Your task to perform on an android device: Open eBay Image 0: 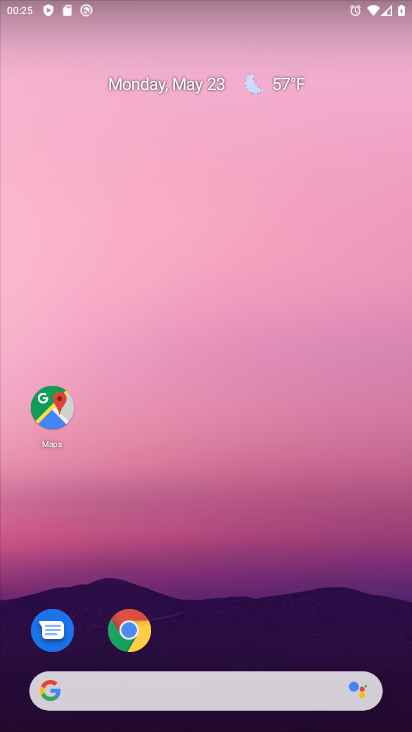
Step 0: click (117, 635)
Your task to perform on an android device: Open eBay Image 1: 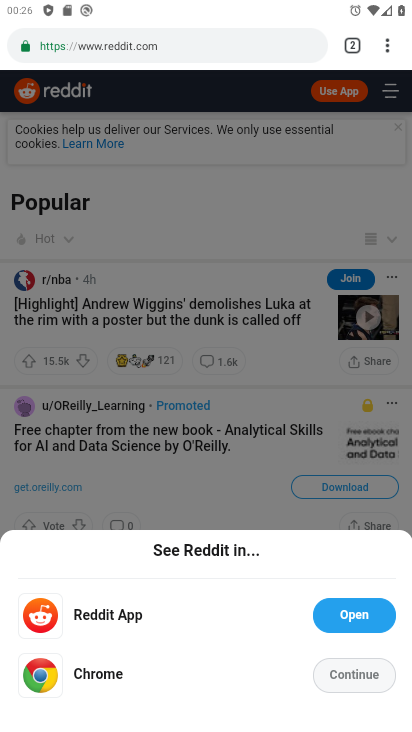
Step 1: click (343, 42)
Your task to perform on an android device: Open eBay Image 2: 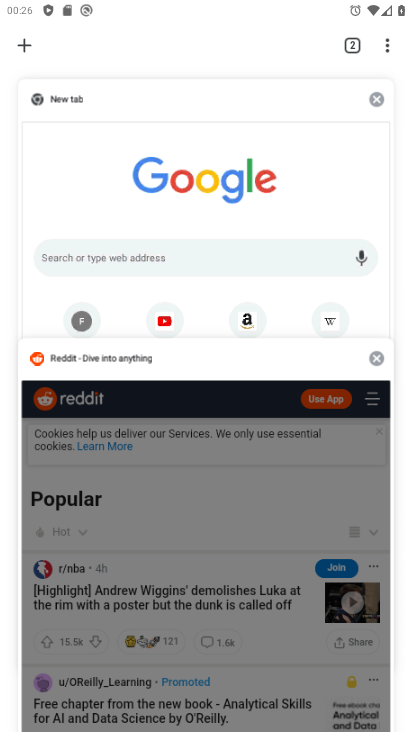
Step 2: click (21, 42)
Your task to perform on an android device: Open eBay Image 3: 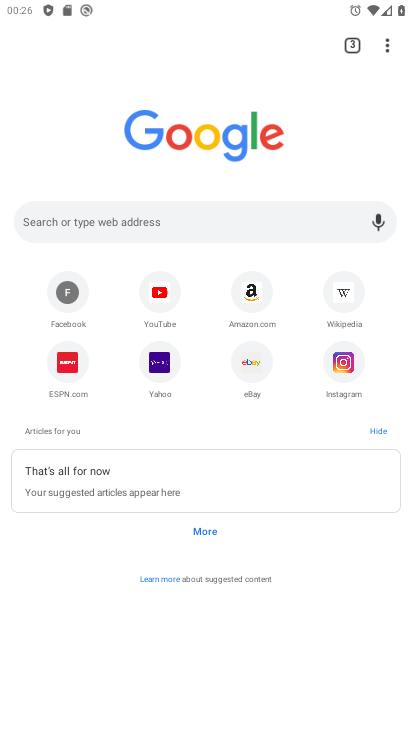
Step 3: click (262, 367)
Your task to perform on an android device: Open eBay Image 4: 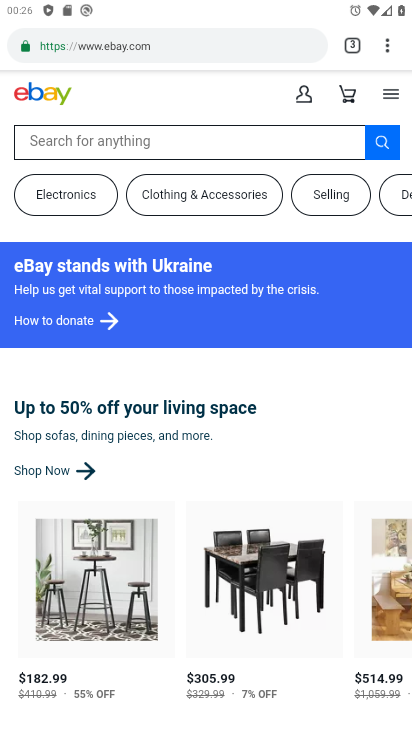
Step 4: task complete